Your task to perform on an android device: Open wifi settings Image 0: 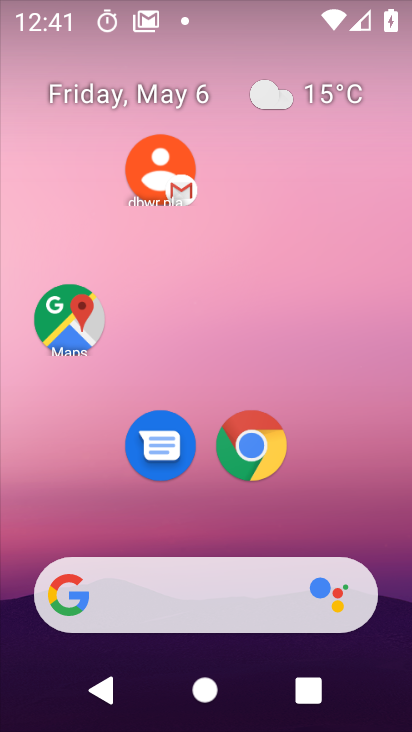
Step 0: drag from (356, 527) to (183, 55)
Your task to perform on an android device: Open wifi settings Image 1: 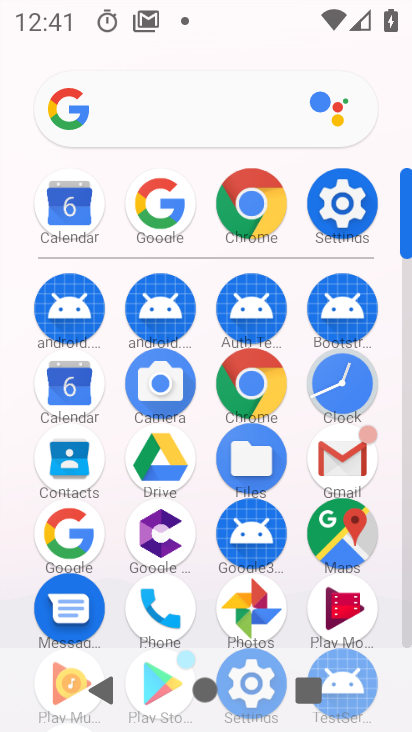
Step 1: click (329, 214)
Your task to perform on an android device: Open wifi settings Image 2: 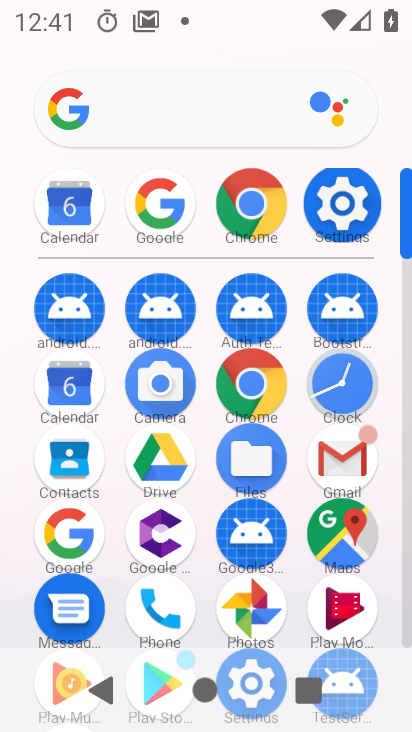
Step 2: click (363, 229)
Your task to perform on an android device: Open wifi settings Image 3: 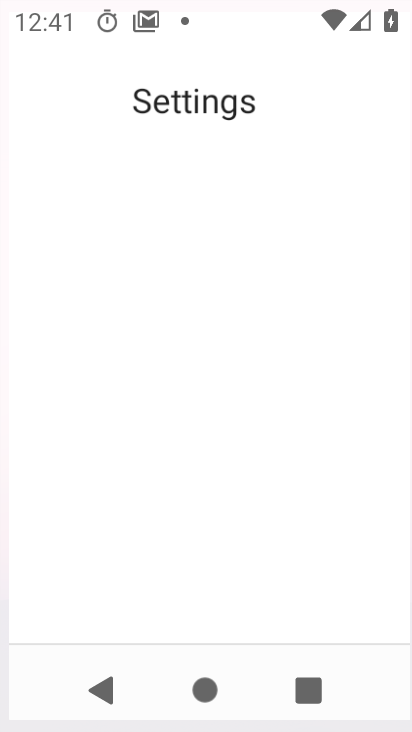
Step 3: click (363, 229)
Your task to perform on an android device: Open wifi settings Image 4: 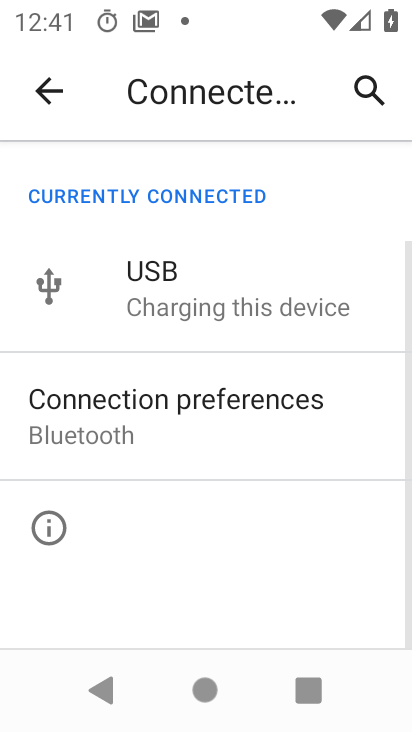
Step 4: click (42, 81)
Your task to perform on an android device: Open wifi settings Image 5: 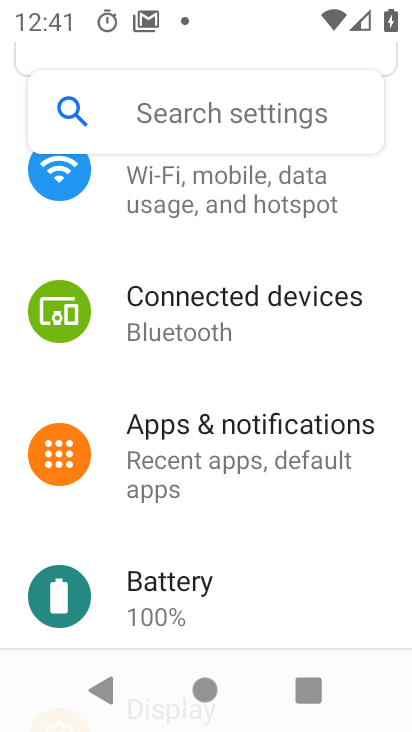
Step 5: click (204, 192)
Your task to perform on an android device: Open wifi settings Image 6: 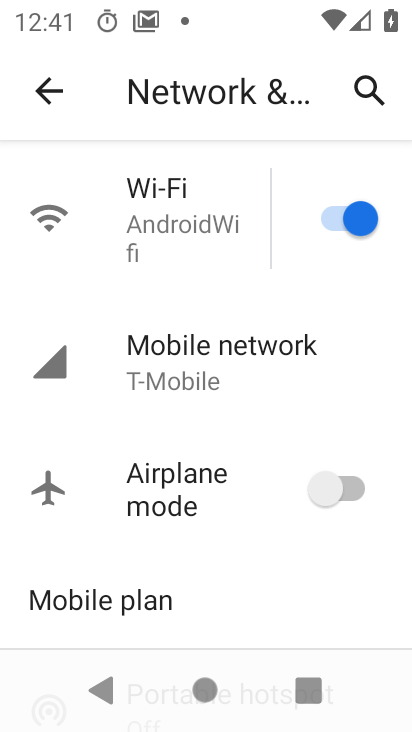
Step 6: task complete